Your task to perform on an android device: Open settings on Google Maps Image 0: 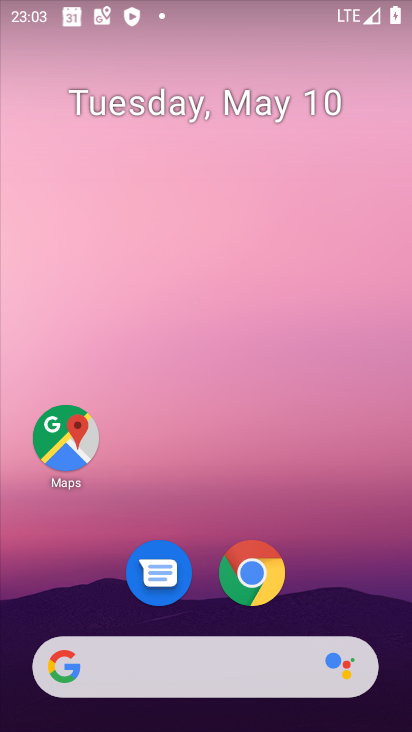
Step 0: click (42, 437)
Your task to perform on an android device: Open settings on Google Maps Image 1: 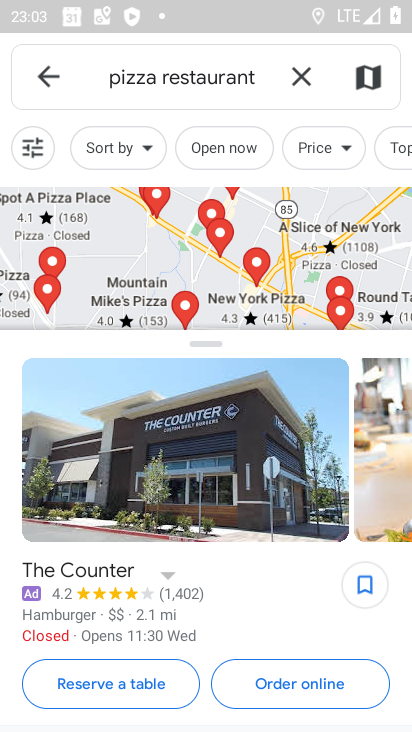
Step 1: click (298, 67)
Your task to perform on an android device: Open settings on Google Maps Image 2: 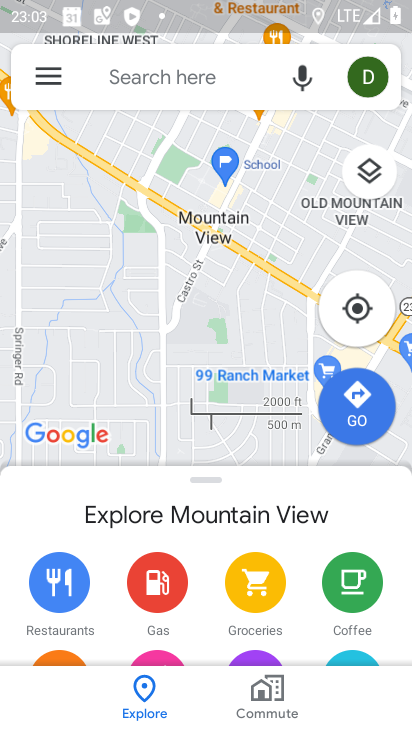
Step 2: click (50, 78)
Your task to perform on an android device: Open settings on Google Maps Image 3: 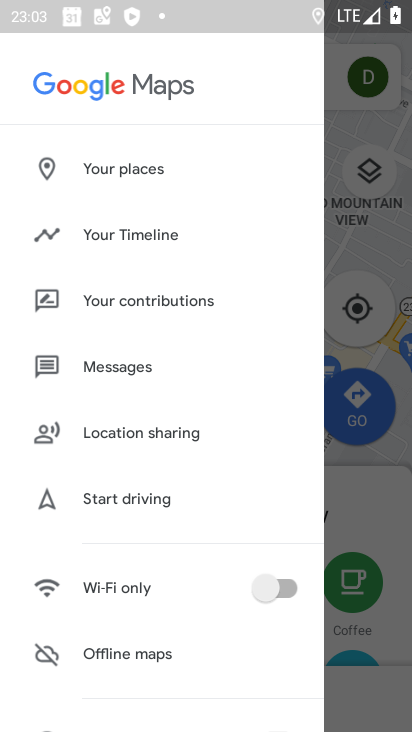
Step 3: drag from (150, 534) to (83, 161)
Your task to perform on an android device: Open settings on Google Maps Image 4: 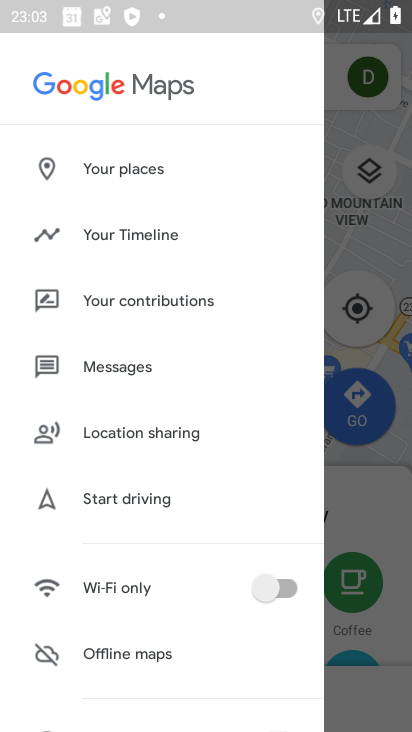
Step 4: click (146, 267)
Your task to perform on an android device: Open settings on Google Maps Image 5: 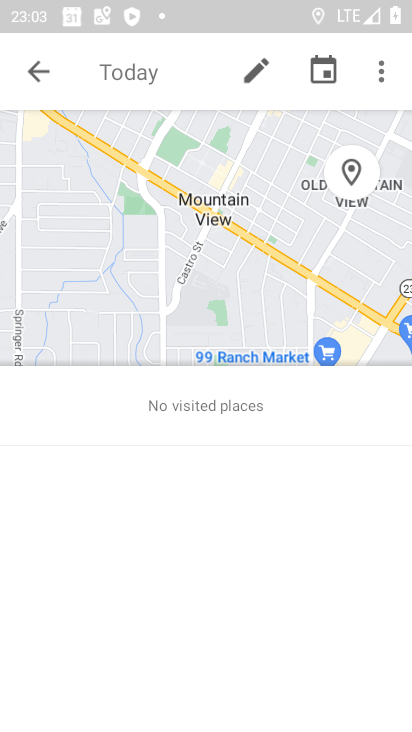
Step 5: click (40, 64)
Your task to perform on an android device: Open settings on Google Maps Image 6: 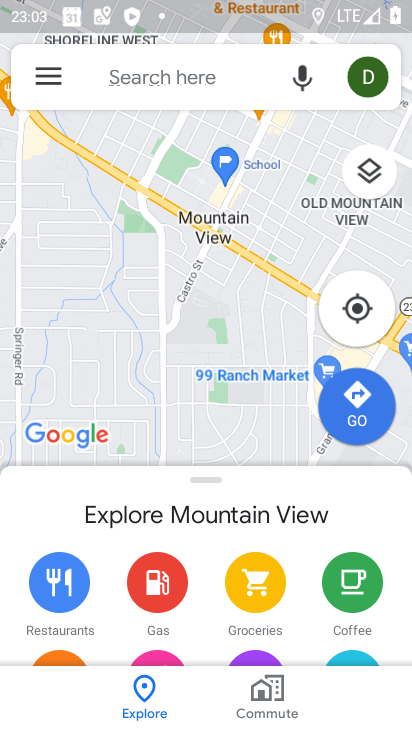
Step 6: click (42, 80)
Your task to perform on an android device: Open settings on Google Maps Image 7: 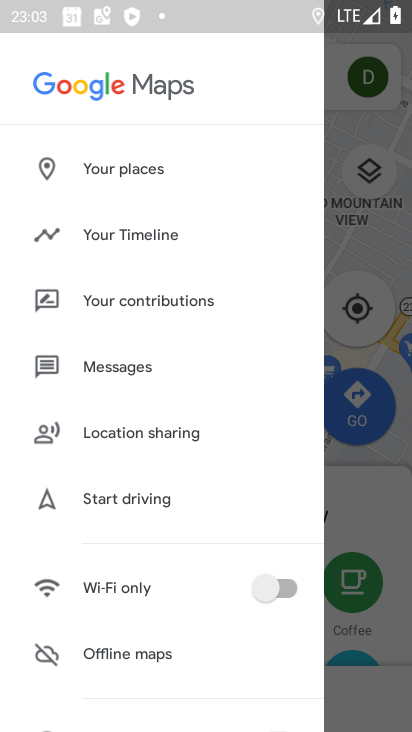
Step 7: drag from (154, 533) to (164, 205)
Your task to perform on an android device: Open settings on Google Maps Image 8: 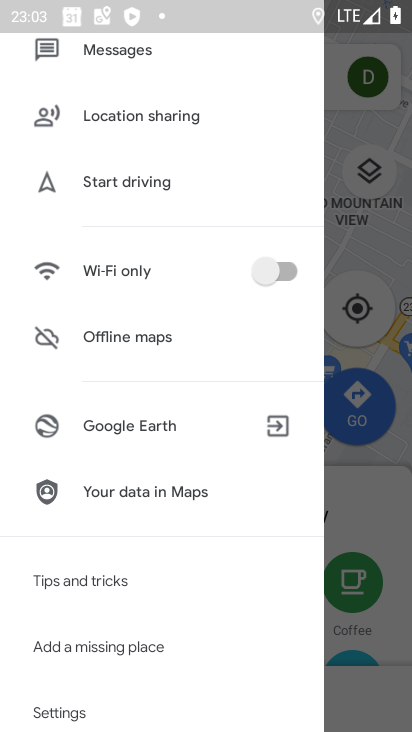
Step 8: drag from (130, 552) to (129, 221)
Your task to perform on an android device: Open settings on Google Maps Image 9: 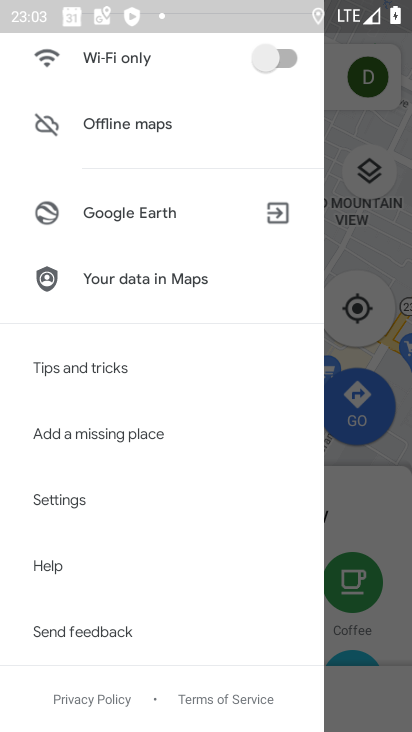
Step 9: click (65, 500)
Your task to perform on an android device: Open settings on Google Maps Image 10: 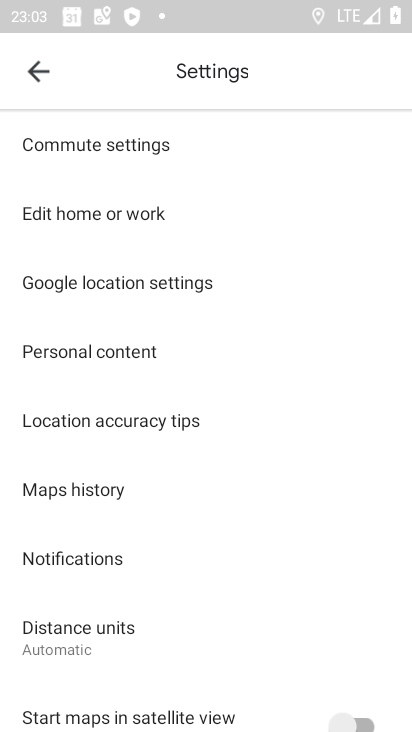
Step 10: task complete